Your task to perform on an android device: turn on the 12-hour format for clock Image 0: 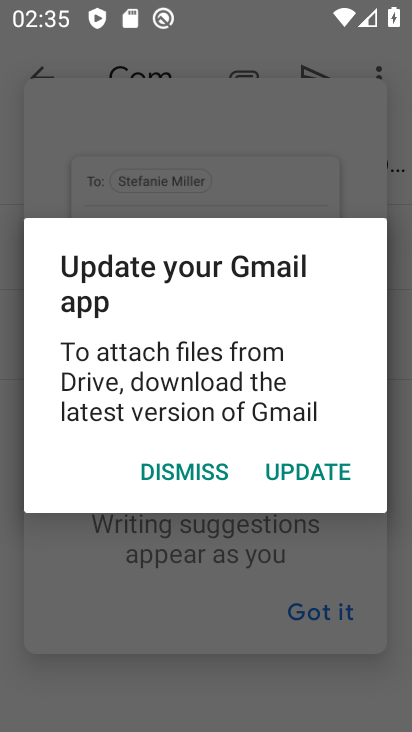
Step 0: press back button
Your task to perform on an android device: turn on the 12-hour format for clock Image 1: 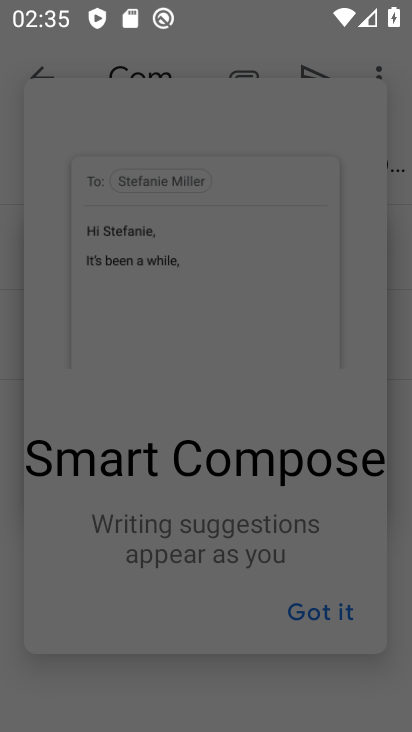
Step 1: press home button
Your task to perform on an android device: turn on the 12-hour format for clock Image 2: 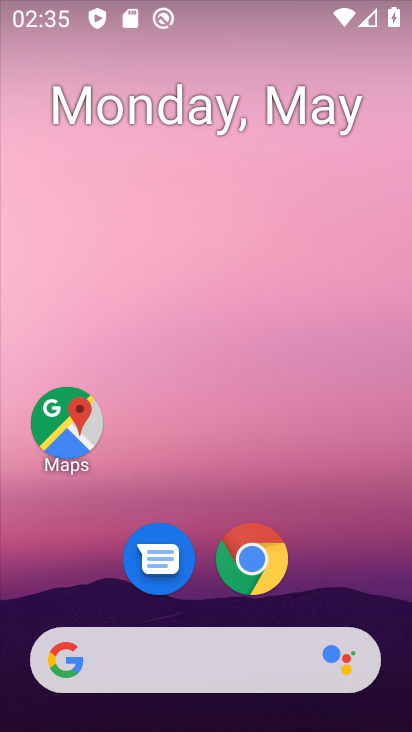
Step 2: drag from (320, 558) to (315, 58)
Your task to perform on an android device: turn on the 12-hour format for clock Image 3: 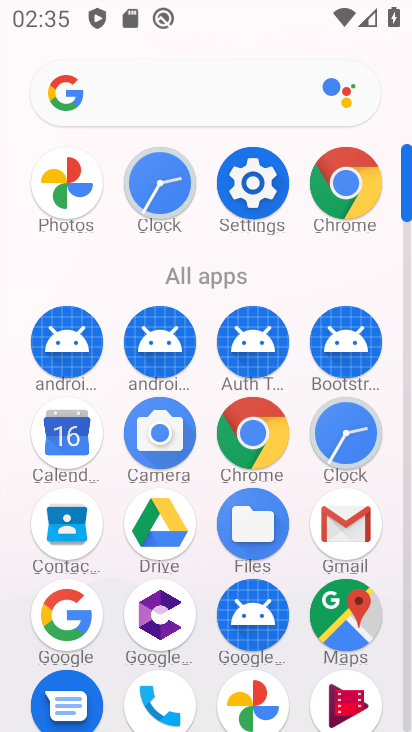
Step 3: drag from (6, 574) to (5, 273)
Your task to perform on an android device: turn on the 12-hour format for clock Image 4: 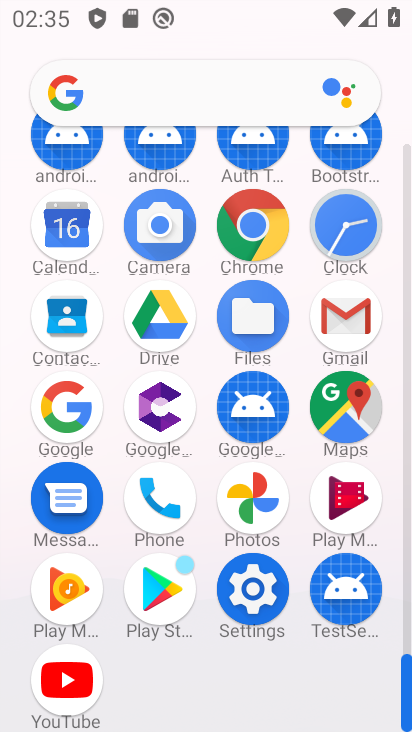
Step 4: click (340, 226)
Your task to perform on an android device: turn on the 12-hour format for clock Image 5: 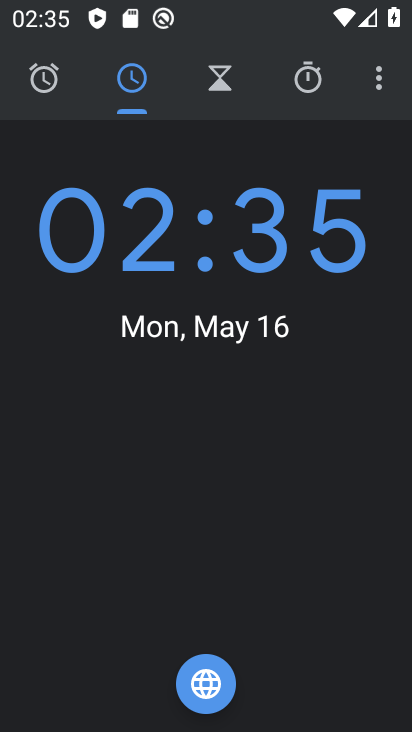
Step 5: drag from (377, 77) to (331, 172)
Your task to perform on an android device: turn on the 12-hour format for clock Image 6: 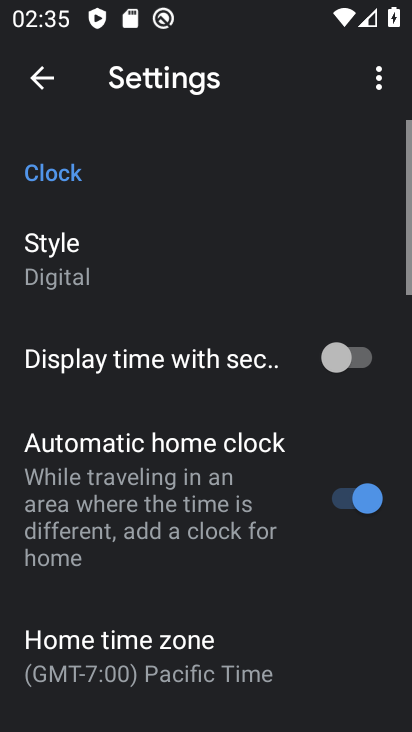
Step 6: drag from (177, 557) to (183, 267)
Your task to perform on an android device: turn on the 12-hour format for clock Image 7: 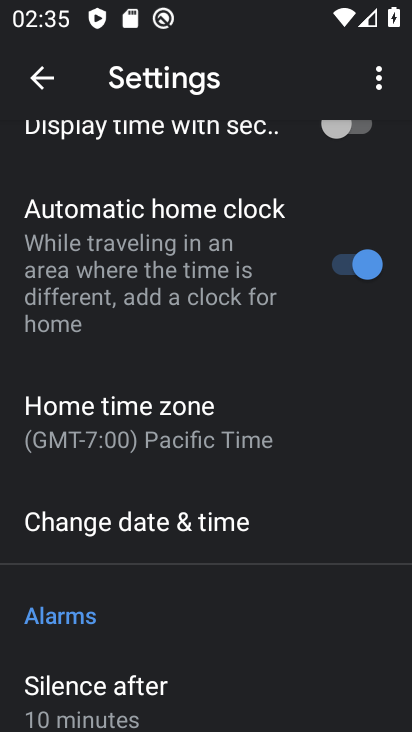
Step 7: click (166, 504)
Your task to perform on an android device: turn on the 12-hour format for clock Image 8: 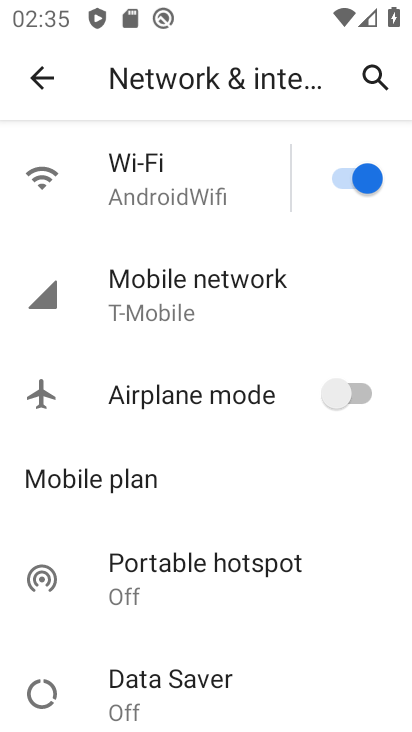
Step 8: drag from (166, 624) to (166, 159)
Your task to perform on an android device: turn on the 12-hour format for clock Image 9: 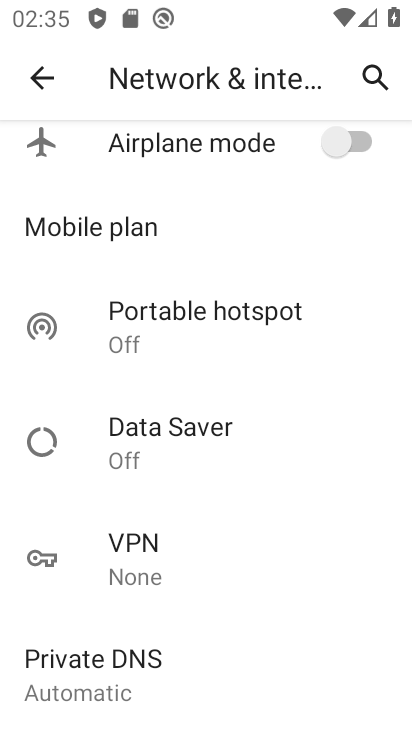
Step 9: drag from (158, 595) to (181, 216)
Your task to perform on an android device: turn on the 12-hour format for clock Image 10: 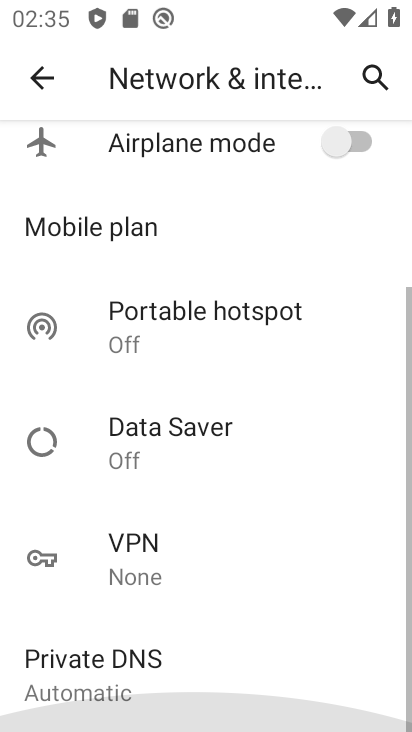
Step 10: drag from (184, 185) to (193, 702)
Your task to perform on an android device: turn on the 12-hour format for clock Image 11: 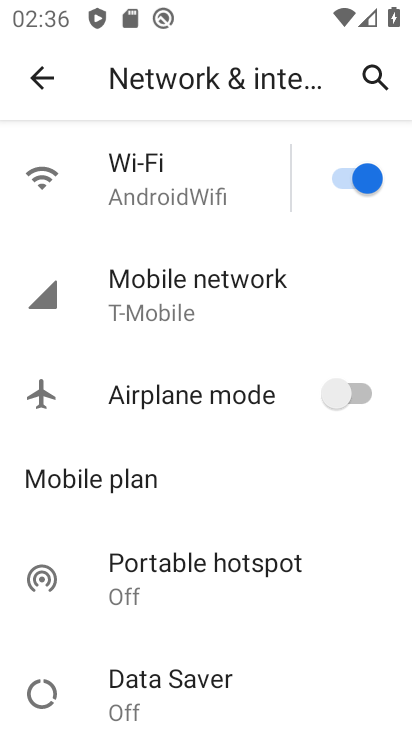
Step 11: drag from (200, 640) to (221, 133)
Your task to perform on an android device: turn on the 12-hour format for clock Image 12: 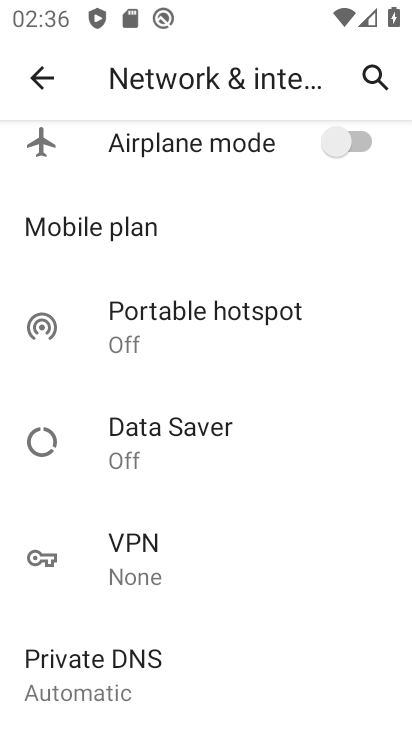
Step 12: drag from (205, 160) to (188, 616)
Your task to perform on an android device: turn on the 12-hour format for clock Image 13: 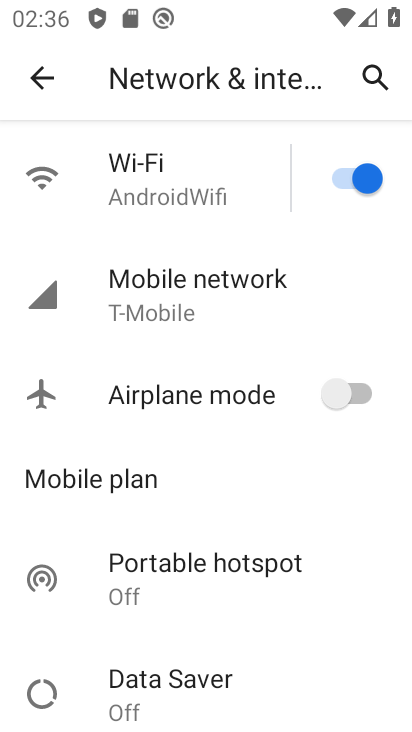
Step 13: press back button
Your task to perform on an android device: turn on the 12-hour format for clock Image 14: 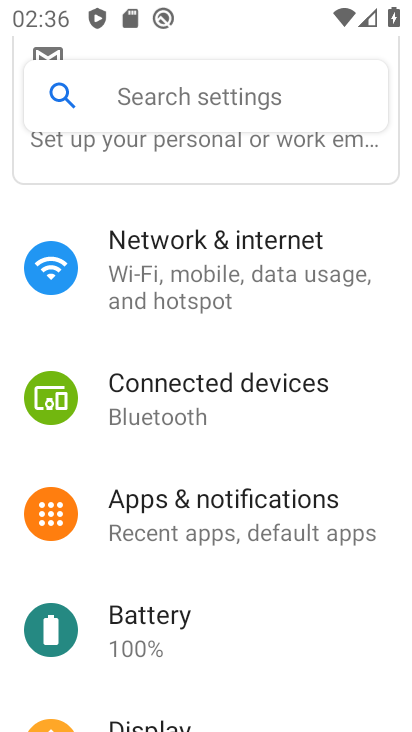
Step 14: press back button
Your task to perform on an android device: turn on the 12-hour format for clock Image 15: 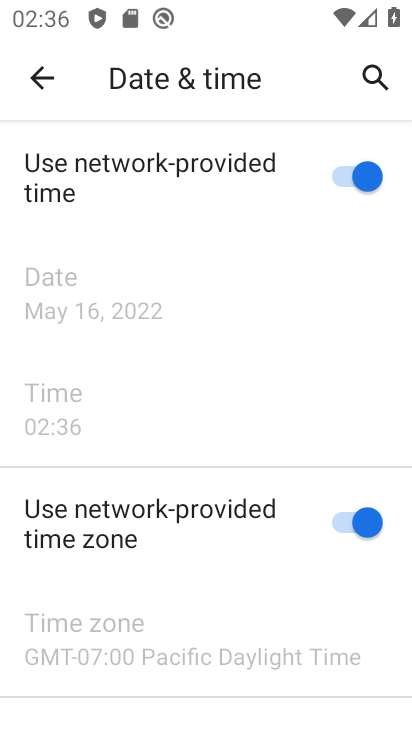
Step 15: press home button
Your task to perform on an android device: turn on the 12-hour format for clock Image 16: 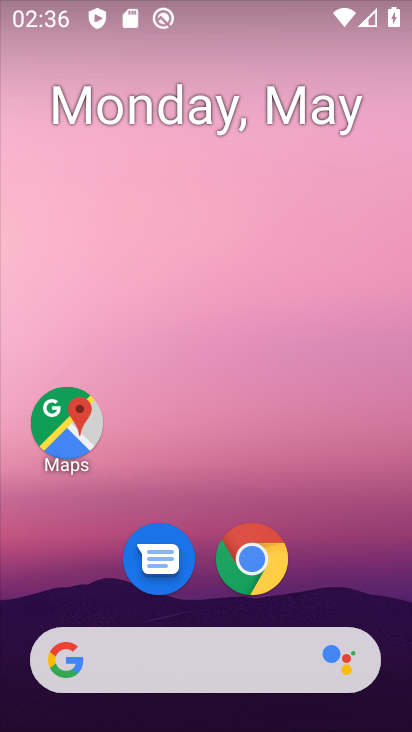
Step 16: drag from (319, 537) to (288, 37)
Your task to perform on an android device: turn on the 12-hour format for clock Image 17: 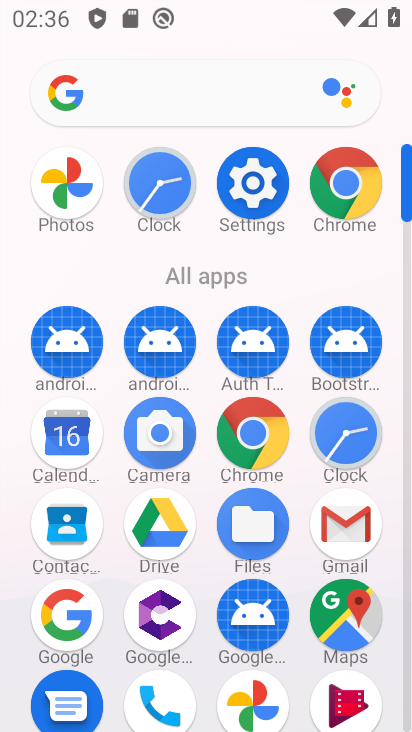
Step 17: click (350, 424)
Your task to perform on an android device: turn on the 12-hour format for clock Image 18: 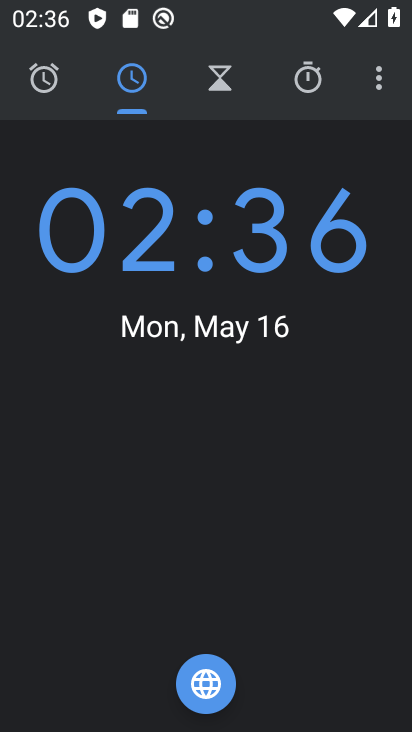
Step 18: drag from (374, 81) to (341, 155)
Your task to perform on an android device: turn on the 12-hour format for clock Image 19: 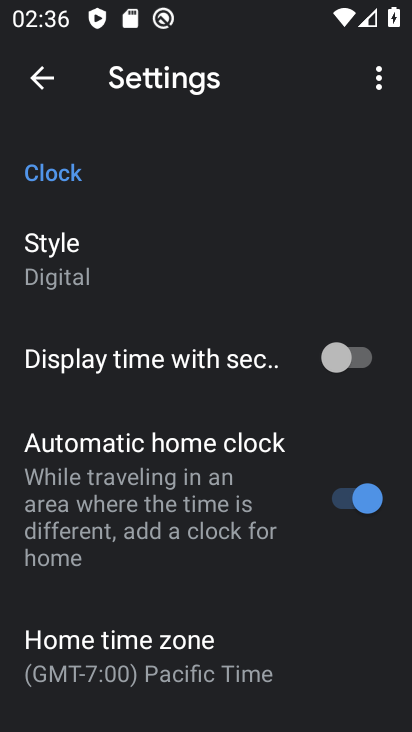
Step 19: drag from (194, 546) to (174, 233)
Your task to perform on an android device: turn on the 12-hour format for clock Image 20: 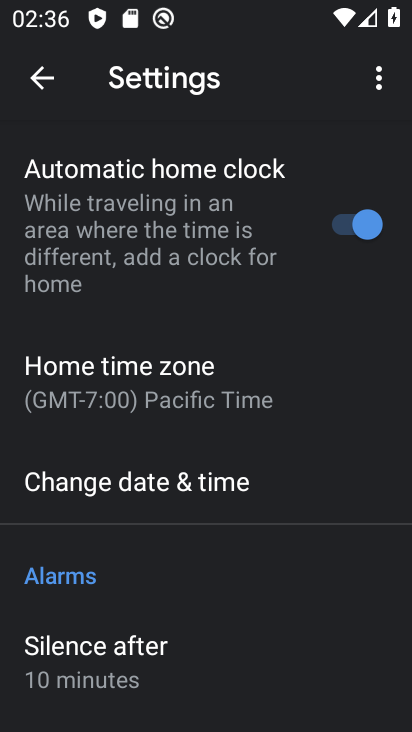
Step 20: click (156, 491)
Your task to perform on an android device: turn on the 12-hour format for clock Image 21: 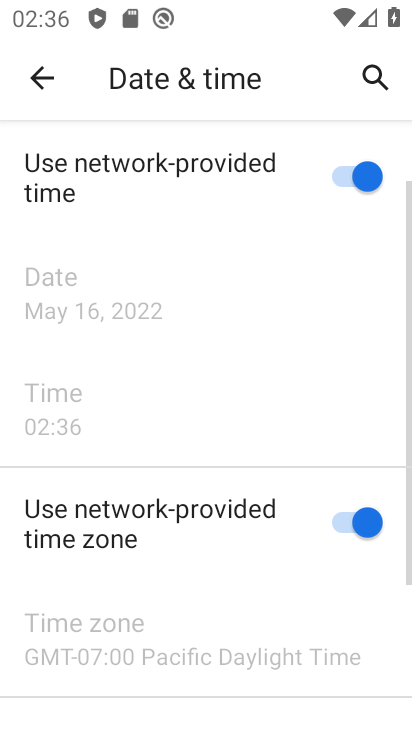
Step 21: drag from (202, 695) to (246, 163)
Your task to perform on an android device: turn on the 12-hour format for clock Image 22: 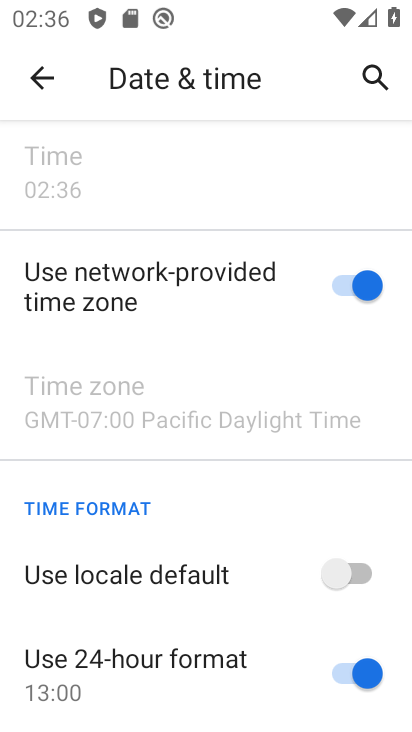
Step 22: click (358, 657)
Your task to perform on an android device: turn on the 12-hour format for clock Image 23: 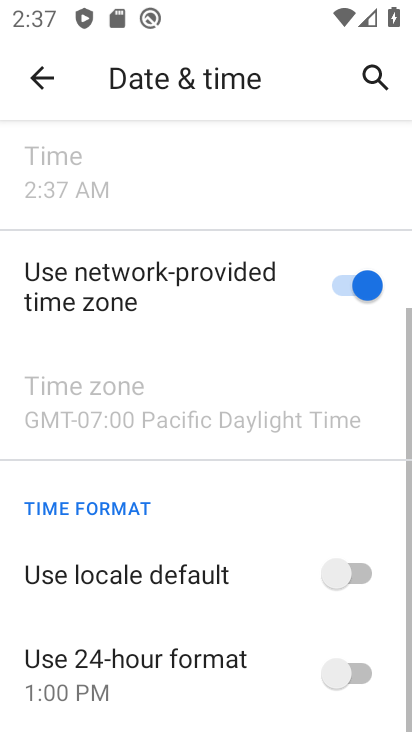
Step 23: click (347, 570)
Your task to perform on an android device: turn on the 12-hour format for clock Image 24: 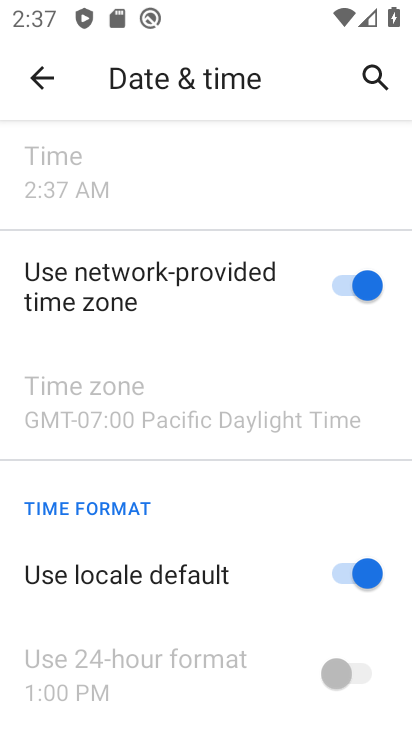
Step 24: task complete